Your task to perform on an android device: When is my next meeting? Image 0: 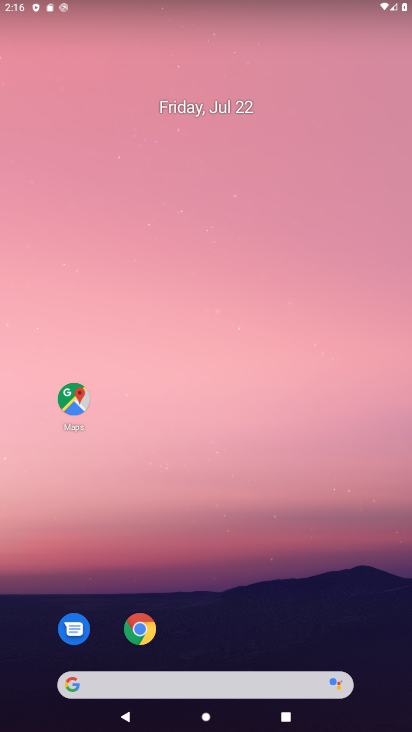
Step 0: click (188, 110)
Your task to perform on an android device: When is my next meeting? Image 1: 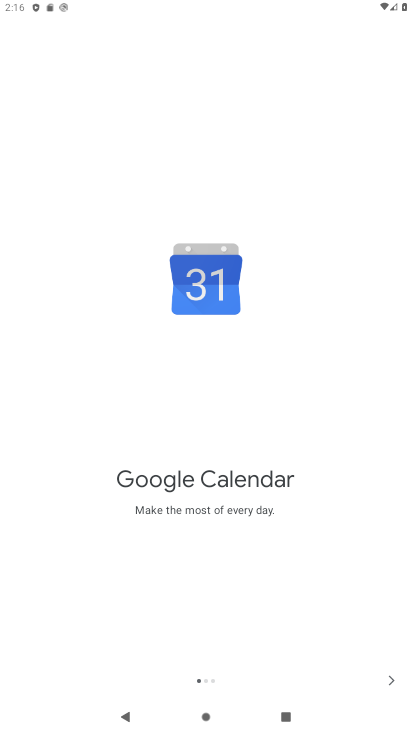
Step 1: click (388, 686)
Your task to perform on an android device: When is my next meeting? Image 2: 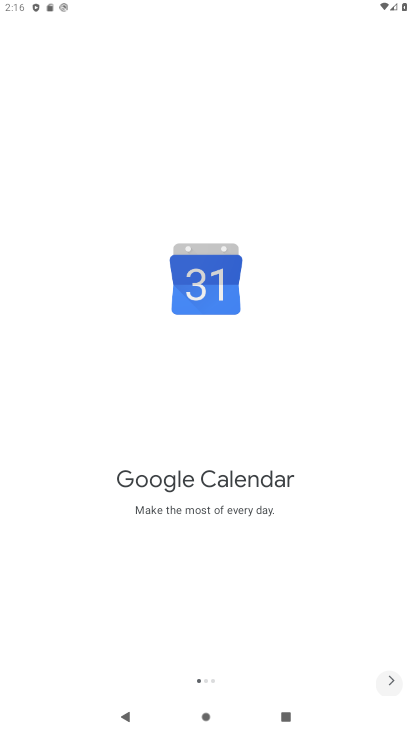
Step 2: click (388, 686)
Your task to perform on an android device: When is my next meeting? Image 3: 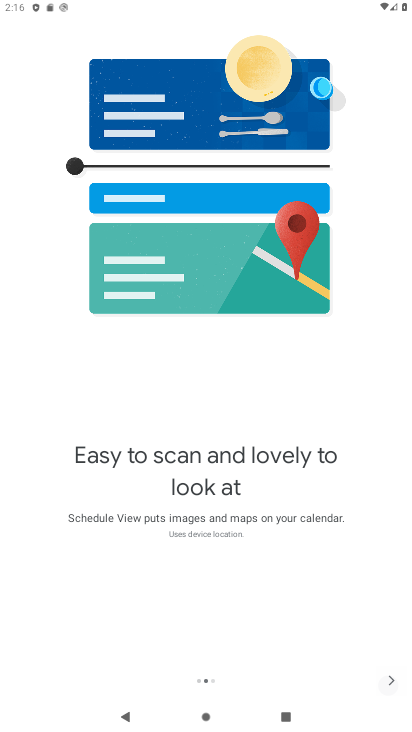
Step 3: click (388, 686)
Your task to perform on an android device: When is my next meeting? Image 4: 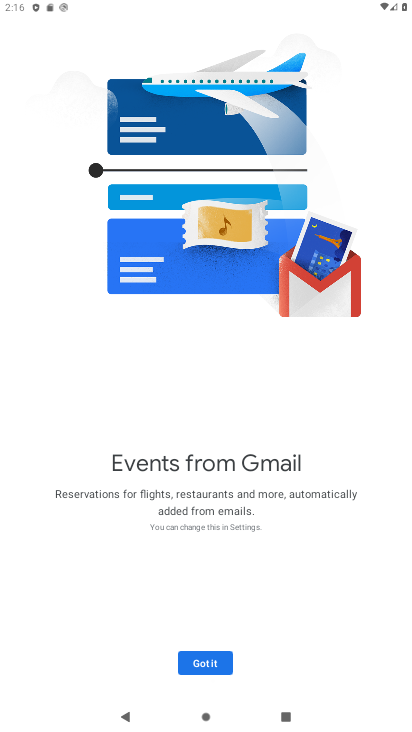
Step 4: click (388, 686)
Your task to perform on an android device: When is my next meeting? Image 5: 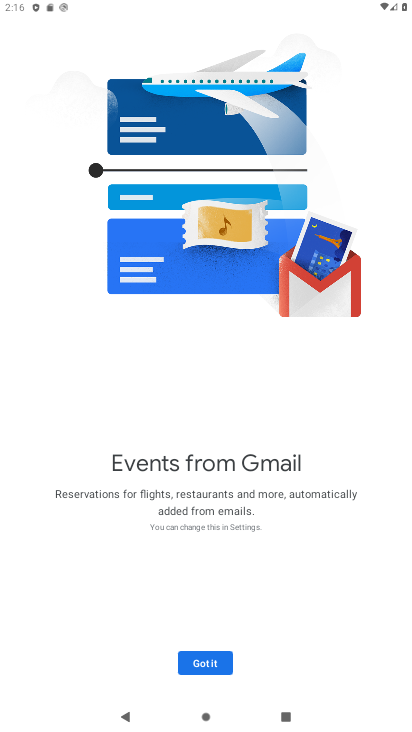
Step 5: click (388, 686)
Your task to perform on an android device: When is my next meeting? Image 6: 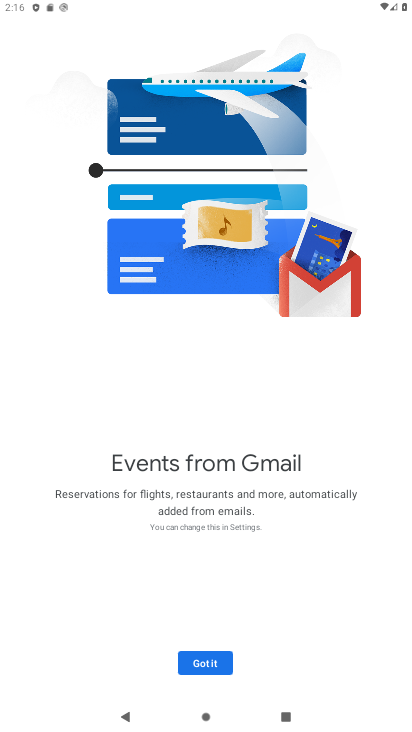
Step 6: click (188, 662)
Your task to perform on an android device: When is my next meeting? Image 7: 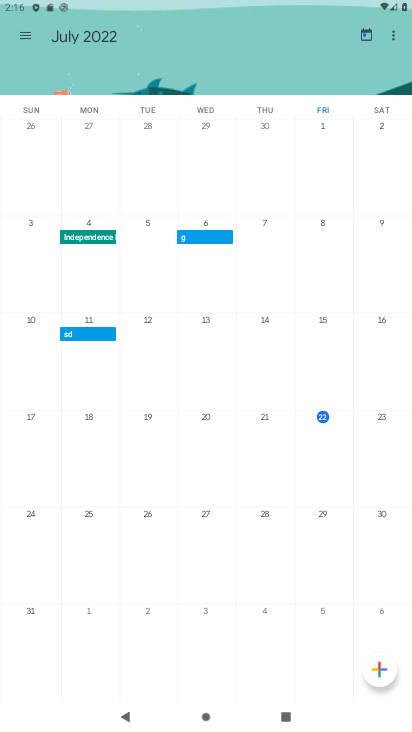
Step 7: task complete